Your task to perform on an android device: turn on priority inbox in the gmail app Image 0: 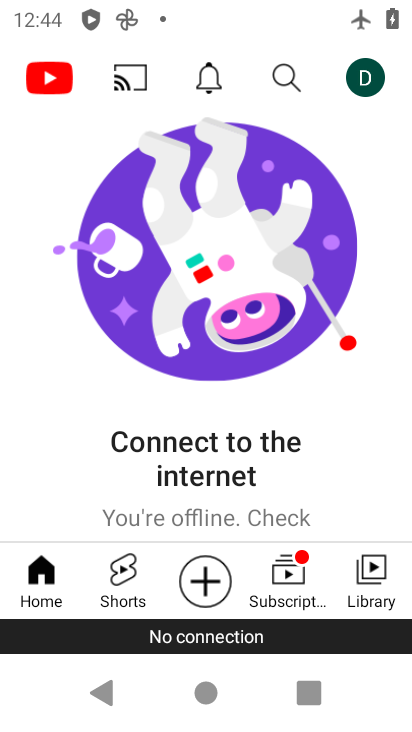
Step 0: press home button
Your task to perform on an android device: turn on priority inbox in the gmail app Image 1: 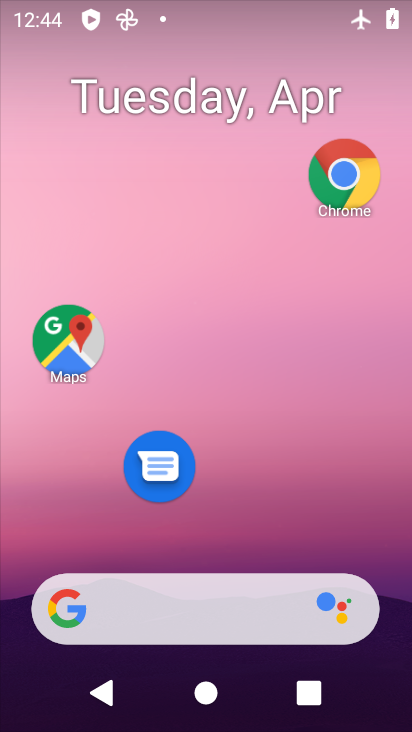
Step 1: drag from (274, 590) to (177, 86)
Your task to perform on an android device: turn on priority inbox in the gmail app Image 2: 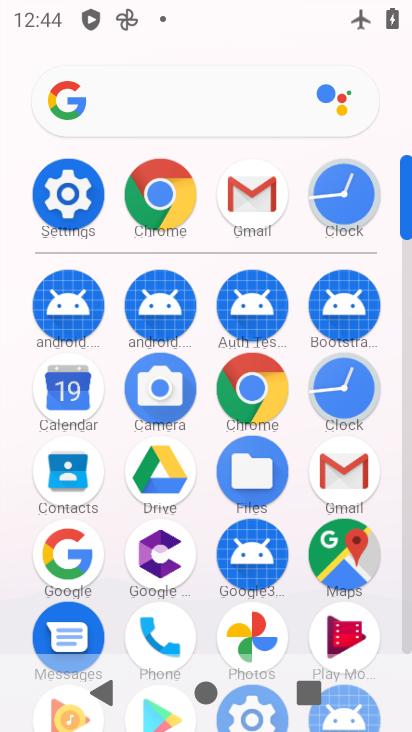
Step 2: click (84, 210)
Your task to perform on an android device: turn on priority inbox in the gmail app Image 3: 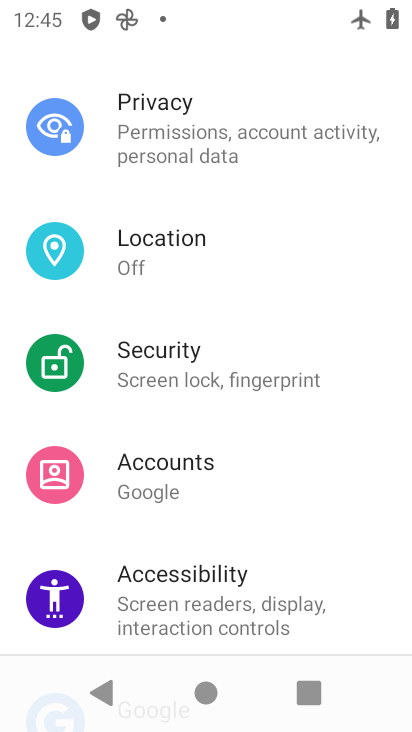
Step 3: drag from (240, 288) to (238, 591)
Your task to perform on an android device: turn on priority inbox in the gmail app Image 4: 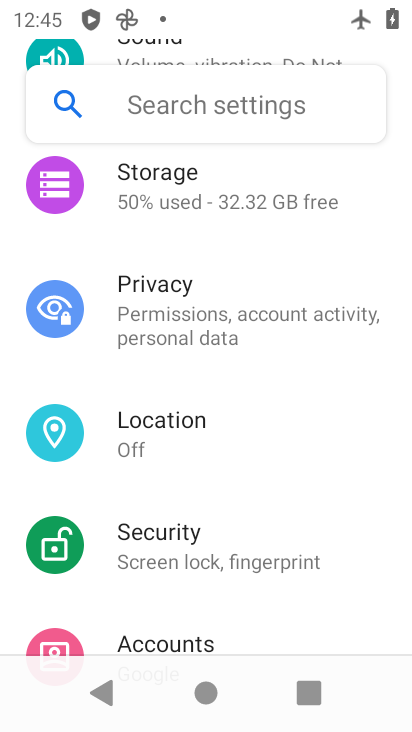
Step 4: press home button
Your task to perform on an android device: turn on priority inbox in the gmail app Image 5: 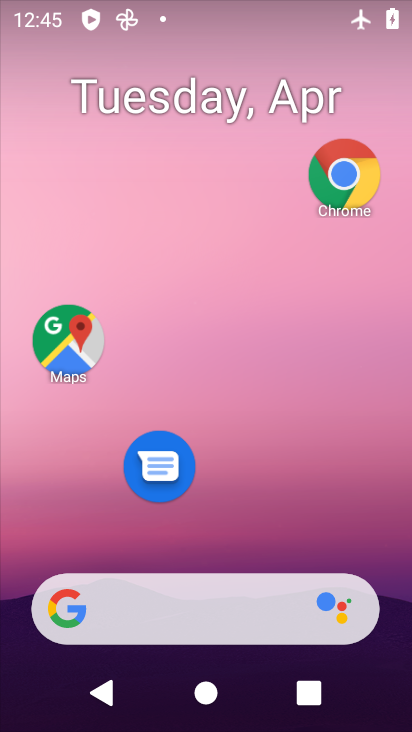
Step 5: drag from (274, 570) to (230, 6)
Your task to perform on an android device: turn on priority inbox in the gmail app Image 6: 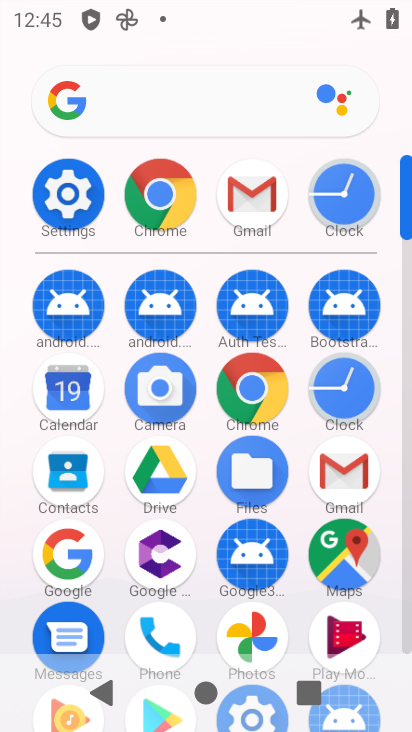
Step 6: drag from (255, 484) to (240, 272)
Your task to perform on an android device: turn on priority inbox in the gmail app Image 7: 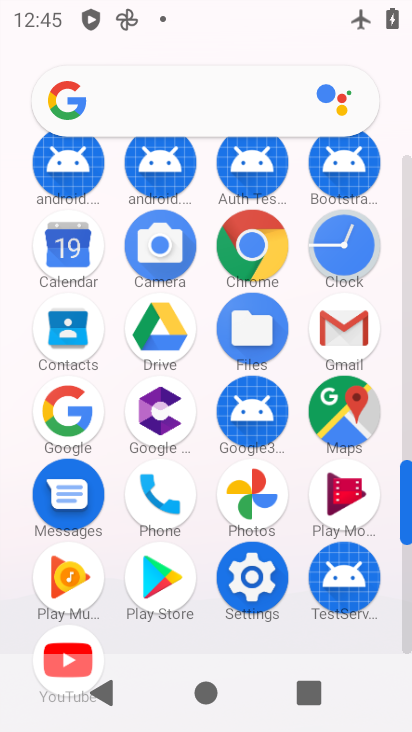
Step 7: click (336, 345)
Your task to perform on an android device: turn on priority inbox in the gmail app Image 8: 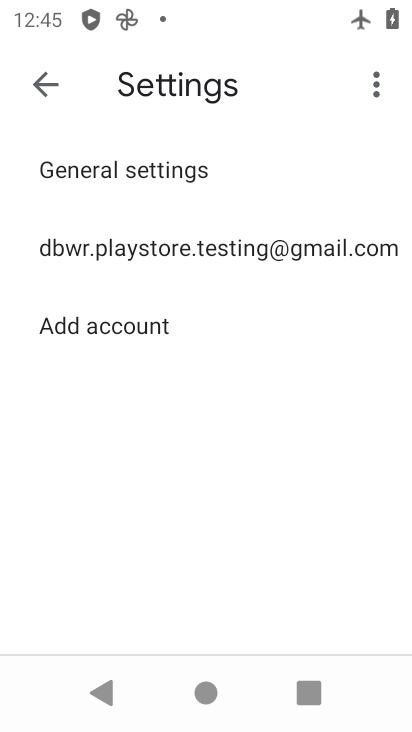
Step 8: click (250, 254)
Your task to perform on an android device: turn on priority inbox in the gmail app Image 9: 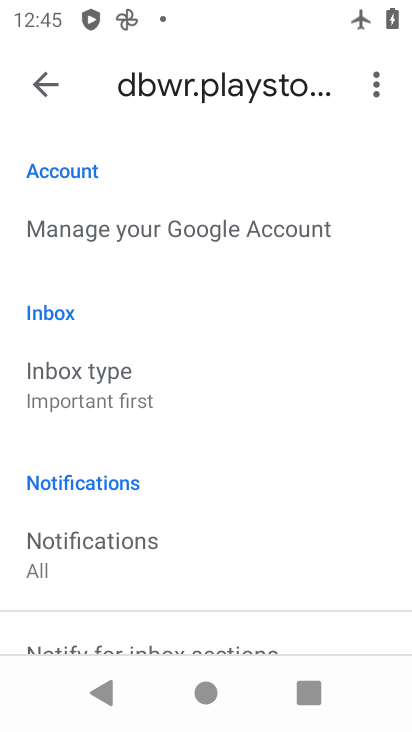
Step 9: click (199, 390)
Your task to perform on an android device: turn on priority inbox in the gmail app Image 10: 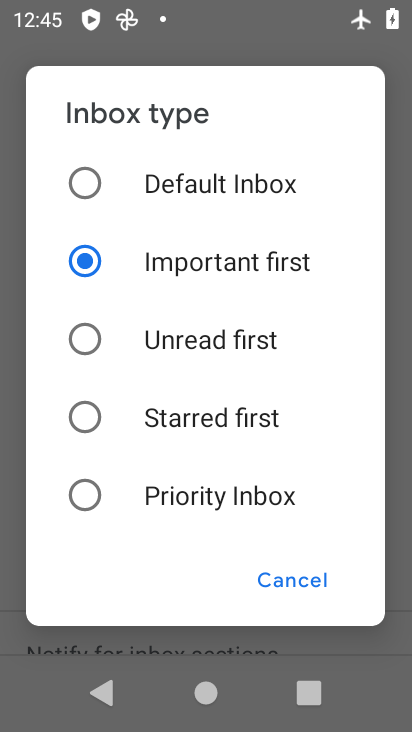
Step 10: click (85, 504)
Your task to perform on an android device: turn on priority inbox in the gmail app Image 11: 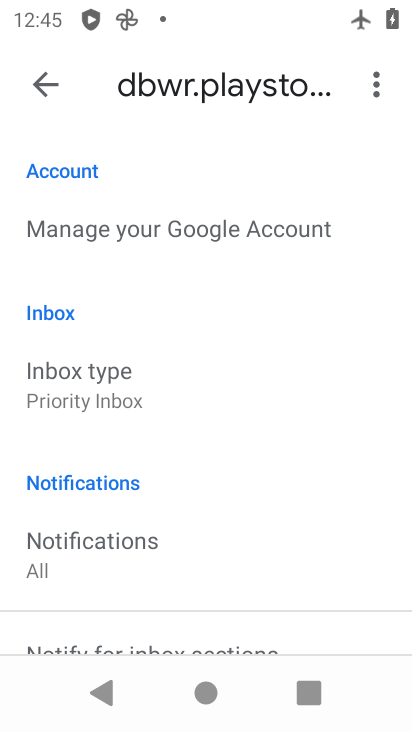
Step 11: task complete